Your task to perform on an android device: Open Google Chrome and click the shortcut for Amazon.com Image 0: 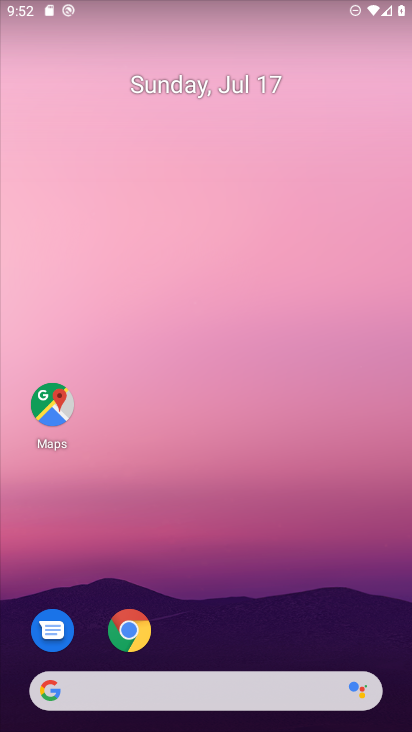
Step 0: click (129, 631)
Your task to perform on an android device: Open Google Chrome and click the shortcut for Amazon.com Image 1: 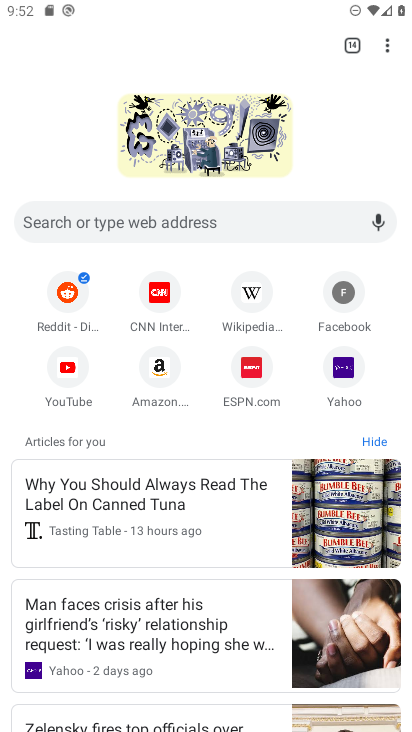
Step 1: click (174, 345)
Your task to perform on an android device: Open Google Chrome and click the shortcut for Amazon.com Image 2: 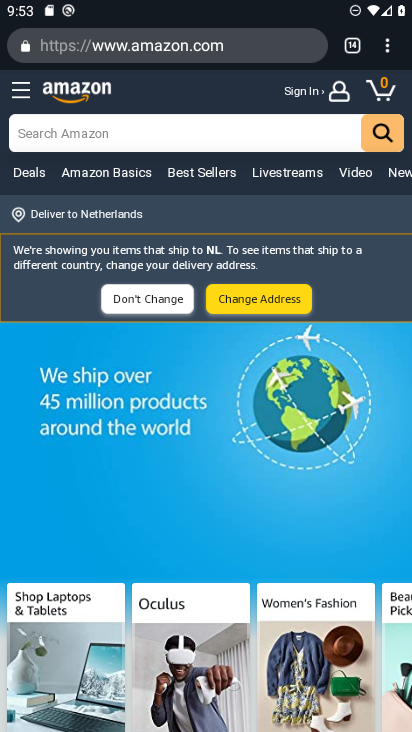
Step 2: task complete